Your task to perform on an android device: Search for "energizer triple a" on ebay.com, select the first entry, add it to the cart, then select checkout. Image 0: 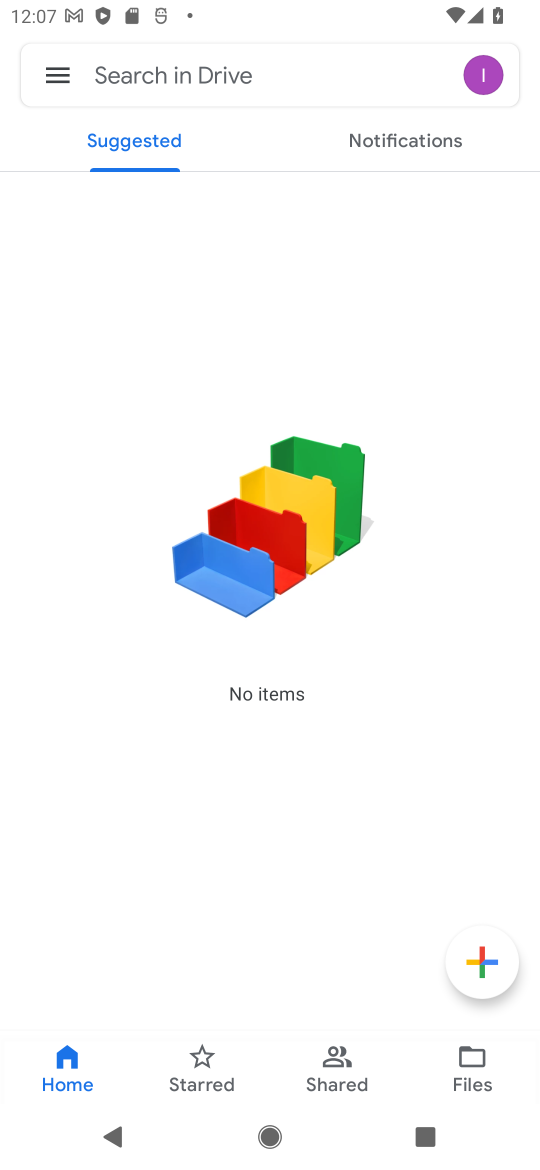
Step 0: press home button
Your task to perform on an android device: Search for "energizer triple a" on ebay.com, select the first entry, add it to the cart, then select checkout. Image 1: 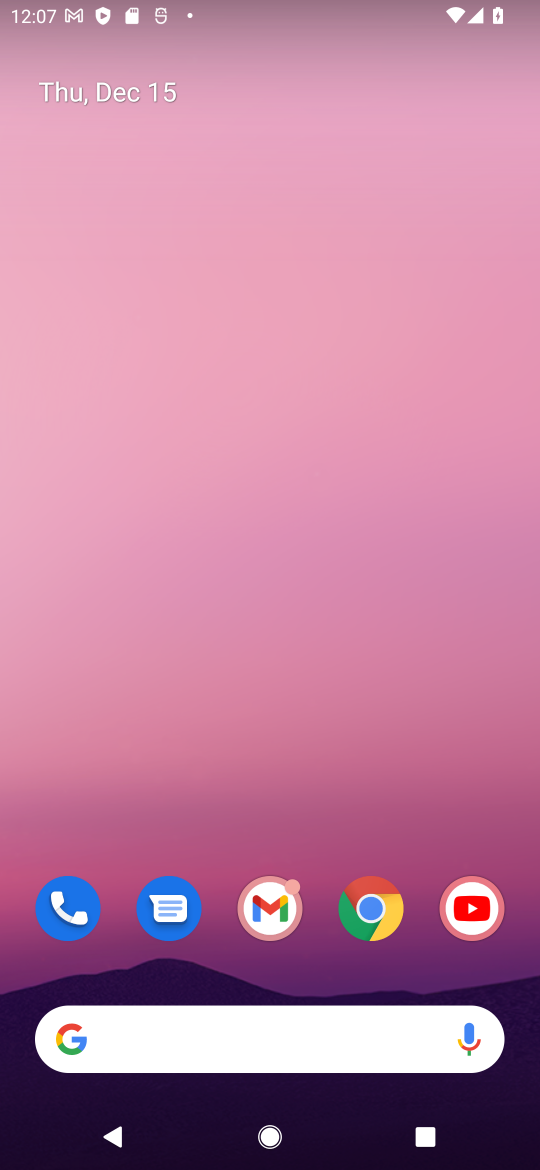
Step 1: click (375, 913)
Your task to perform on an android device: Search for "energizer triple a" on ebay.com, select the first entry, add it to the cart, then select checkout. Image 2: 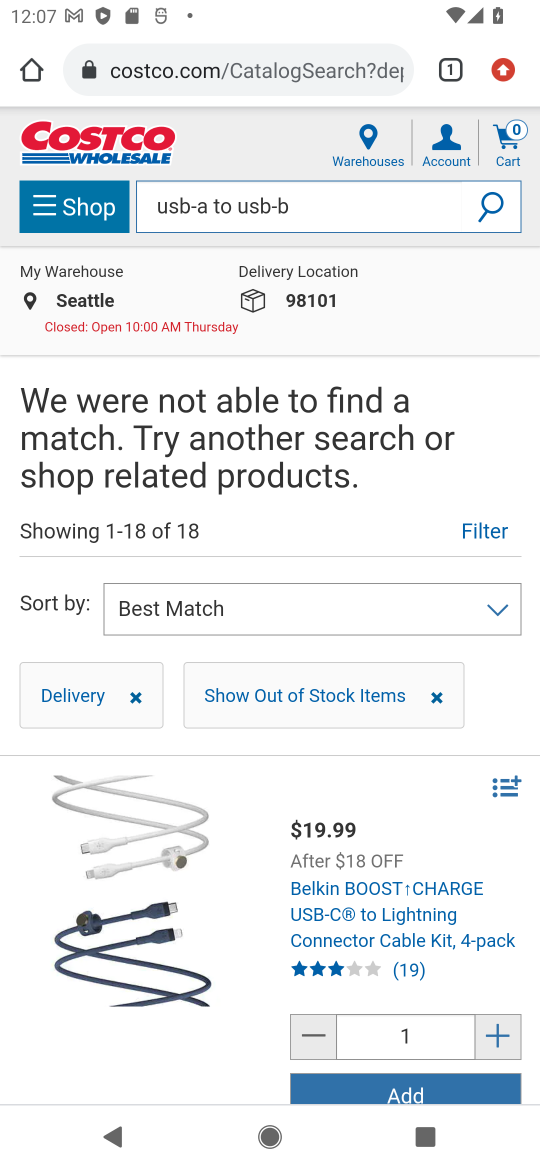
Step 2: click (207, 79)
Your task to perform on an android device: Search for "energizer triple a" on ebay.com, select the first entry, add it to the cart, then select checkout. Image 3: 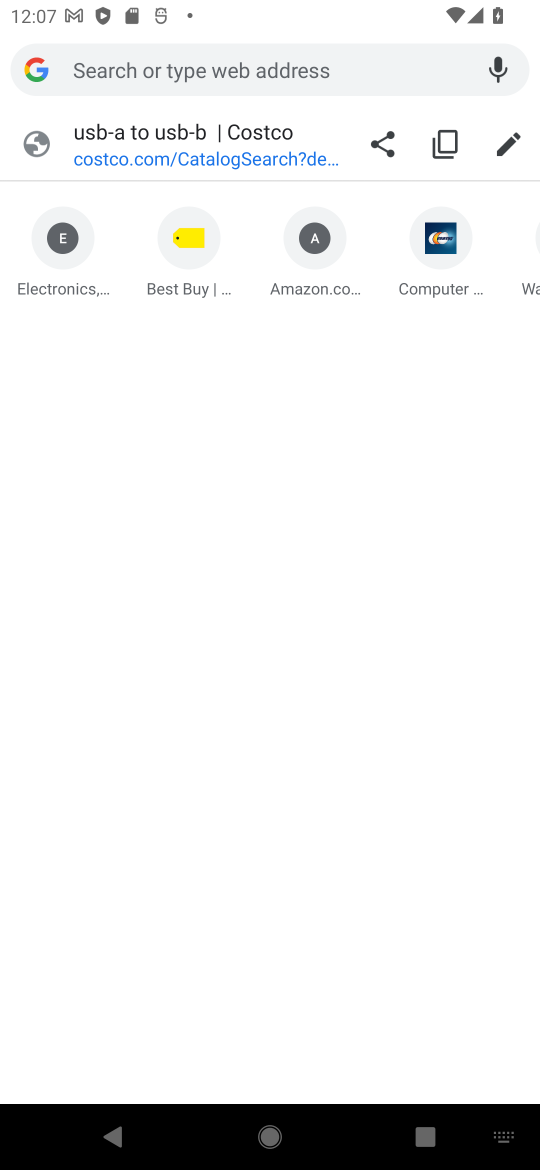
Step 3: type "ebay.com"
Your task to perform on an android device: Search for "energizer triple a" on ebay.com, select the first entry, add it to the cart, then select checkout. Image 4: 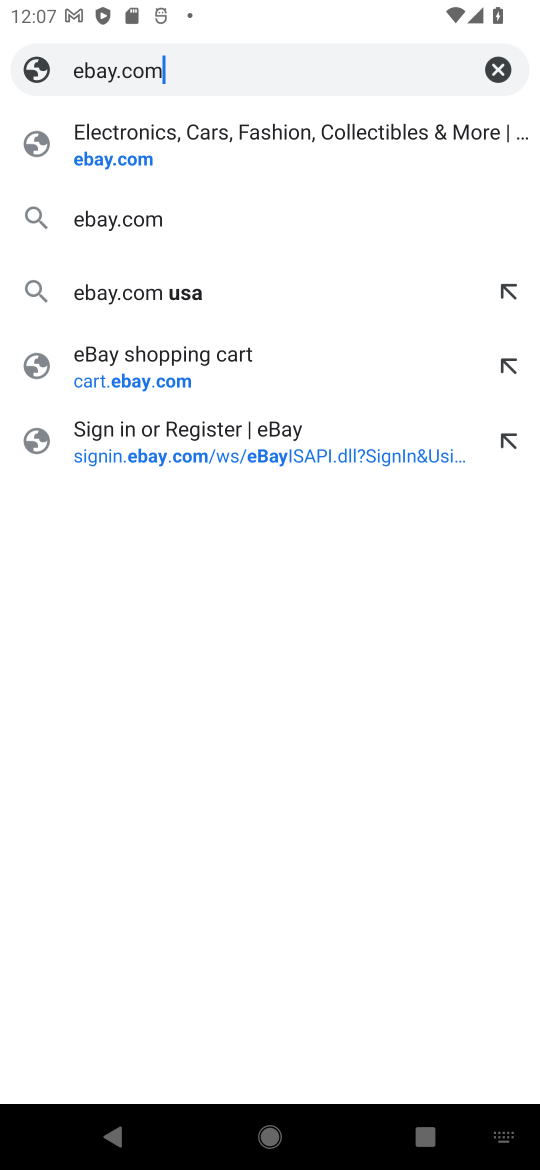
Step 4: click (103, 162)
Your task to perform on an android device: Search for "energizer triple a" on ebay.com, select the first entry, add it to the cart, then select checkout. Image 5: 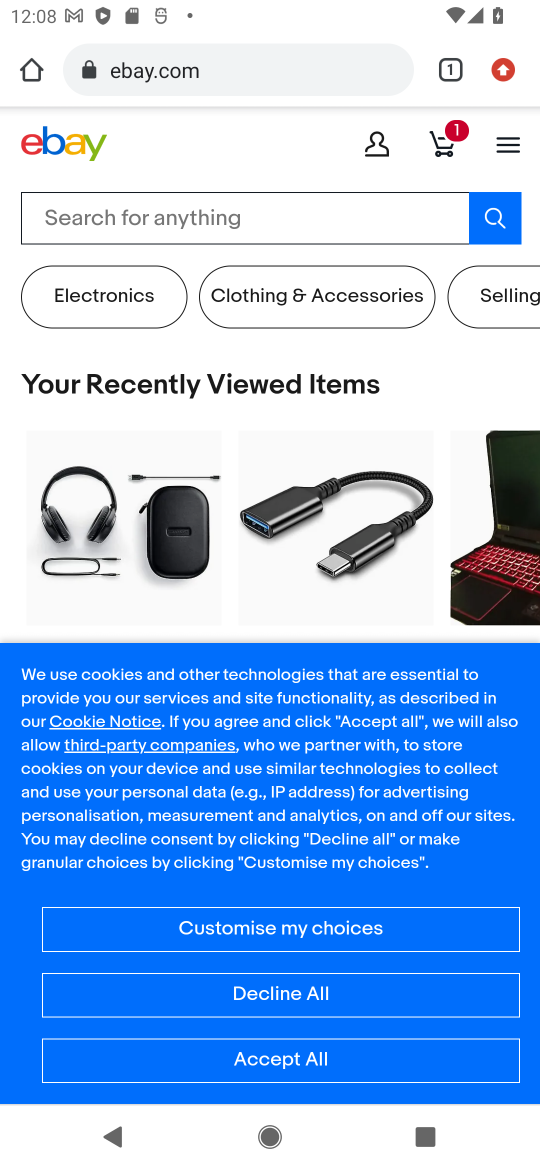
Step 5: click (103, 229)
Your task to perform on an android device: Search for "energizer triple a" on ebay.com, select the first entry, add it to the cart, then select checkout. Image 6: 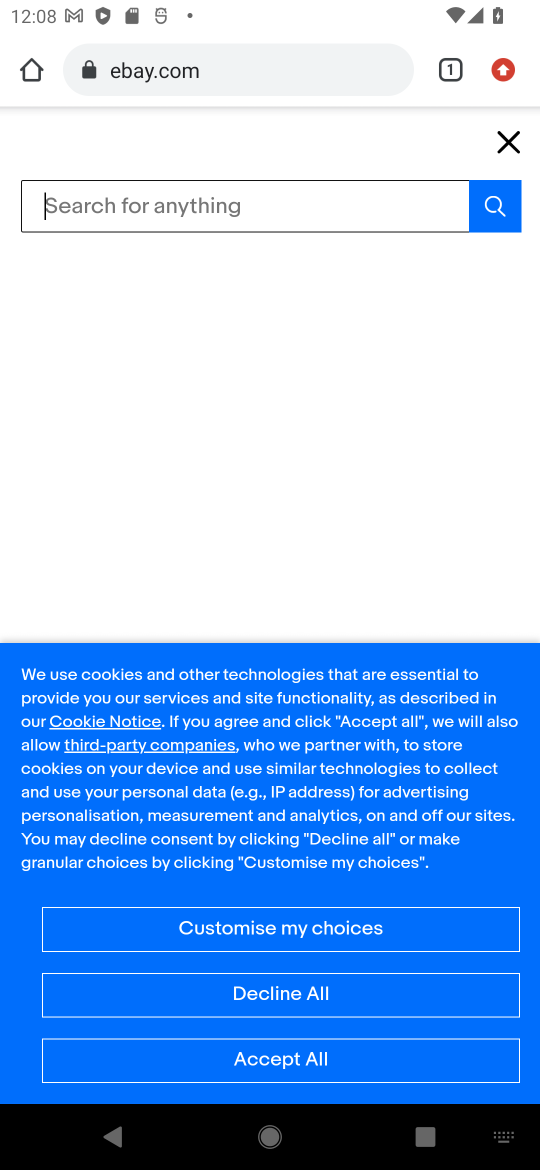
Step 6: type "energizer triple a"
Your task to perform on an android device: Search for "energizer triple a" on ebay.com, select the first entry, add it to the cart, then select checkout. Image 7: 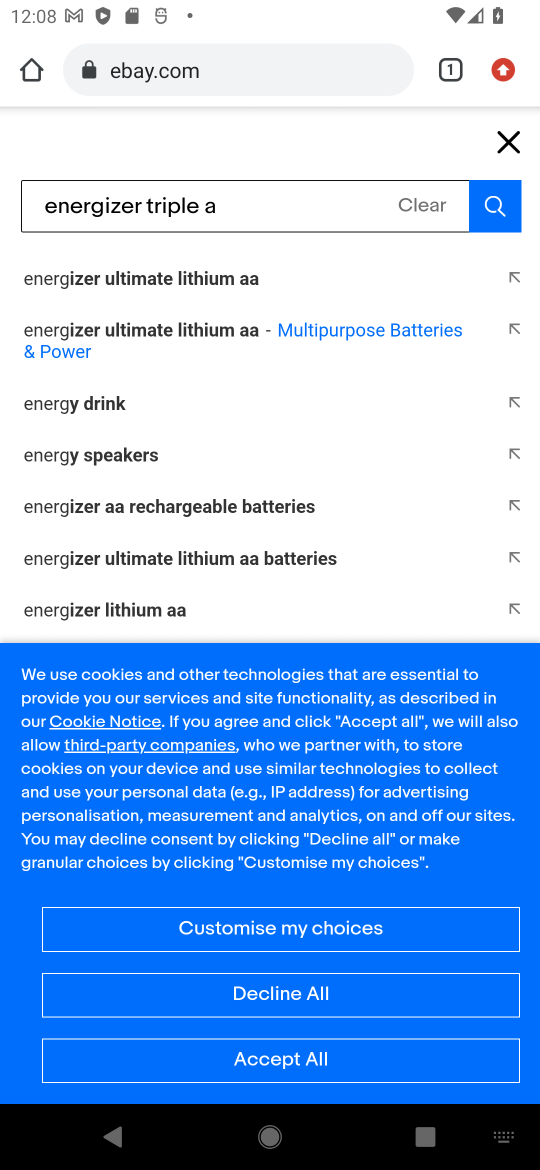
Step 7: click (485, 223)
Your task to perform on an android device: Search for "energizer triple a" on ebay.com, select the first entry, add it to the cart, then select checkout. Image 8: 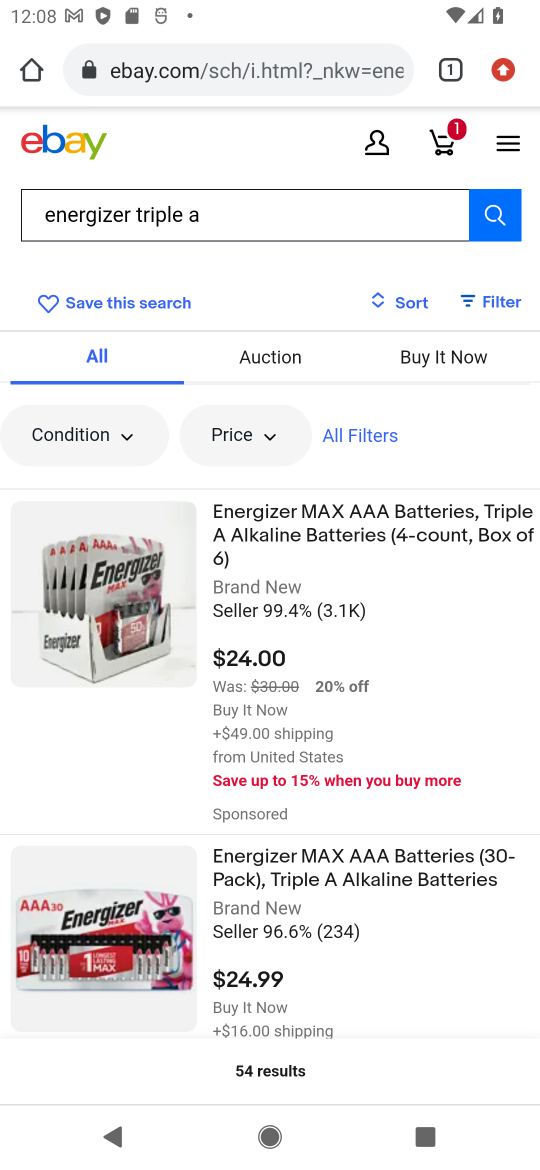
Step 8: click (253, 529)
Your task to perform on an android device: Search for "energizer triple a" on ebay.com, select the first entry, add it to the cart, then select checkout. Image 9: 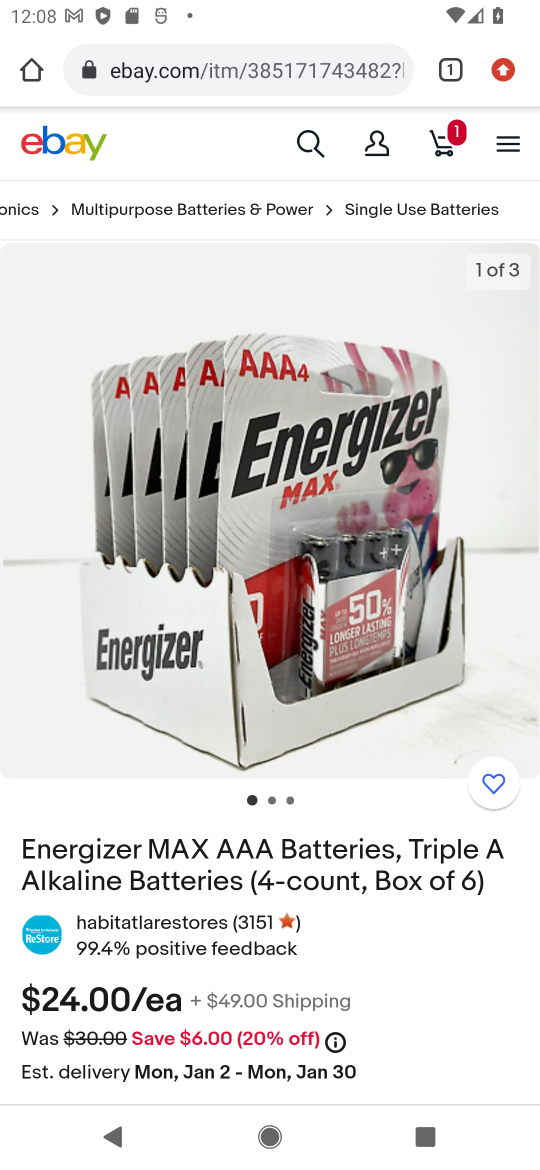
Step 9: drag from (267, 899) to (285, 407)
Your task to perform on an android device: Search for "energizer triple a" on ebay.com, select the first entry, add it to the cart, then select checkout. Image 10: 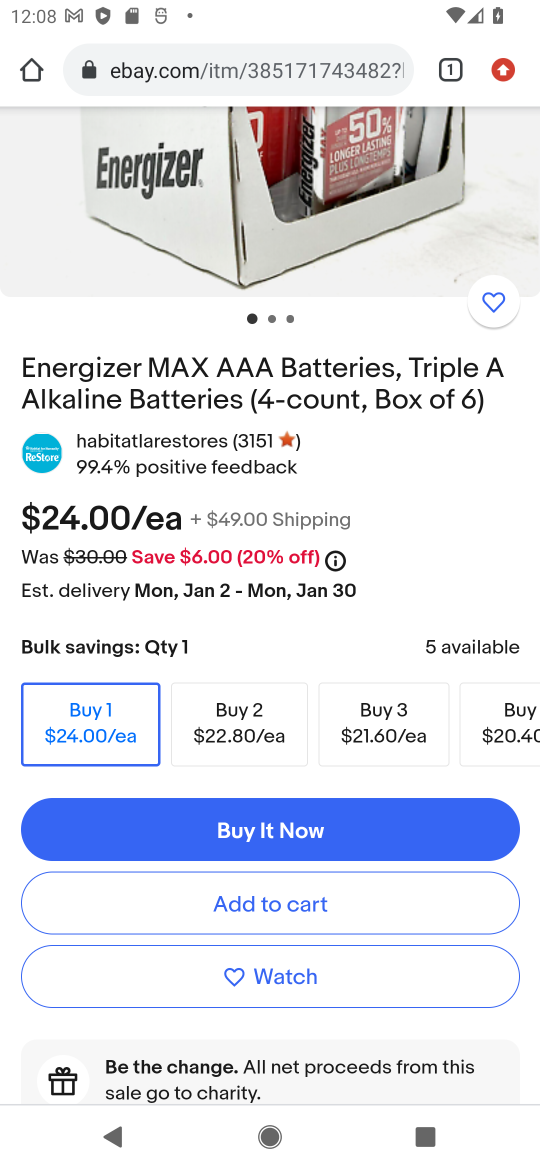
Step 10: click (271, 900)
Your task to perform on an android device: Search for "energizer triple a" on ebay.com, select the first entry, add it to the cart, then select checkout. Image 11: 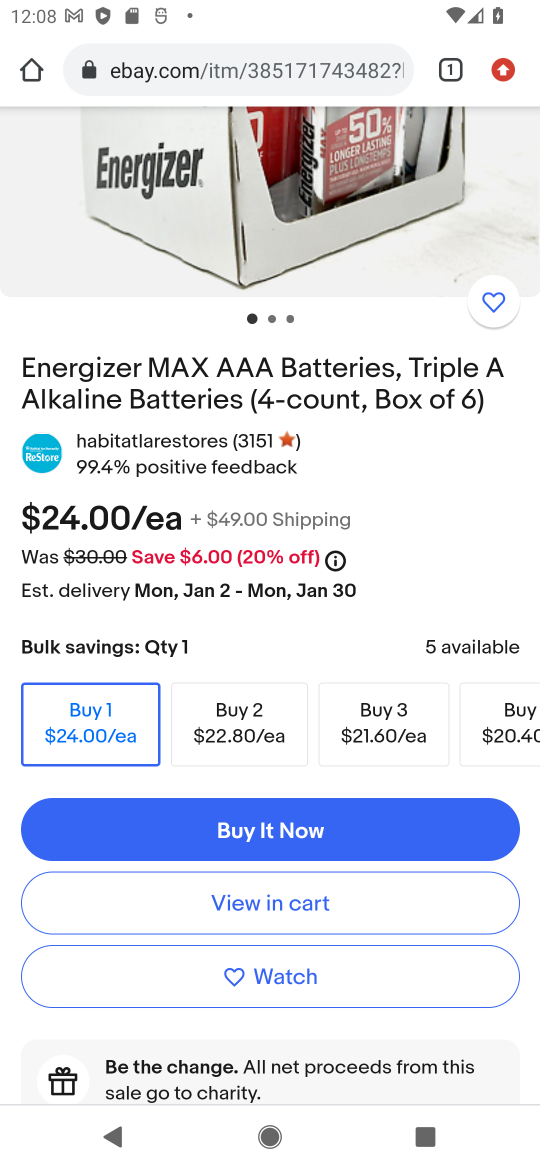
Step 11: click (271, 900)
Your task to perform on an android device: Search for "energizer triple a" on ebay.com, select the first entry, add it to the cart, then select checkout. Image 12: 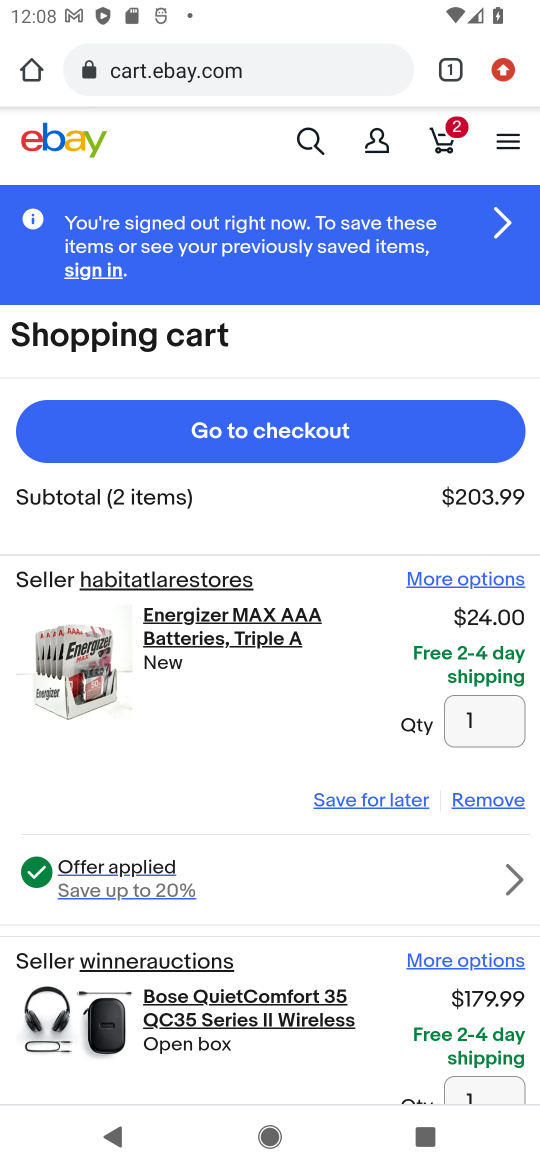
Step 12: click (249, 451)
Your task to perform on an android device: Search for "energizer triple a" on ebay.com, select the first entry, add it to the cart, then select checkout. Image 13: 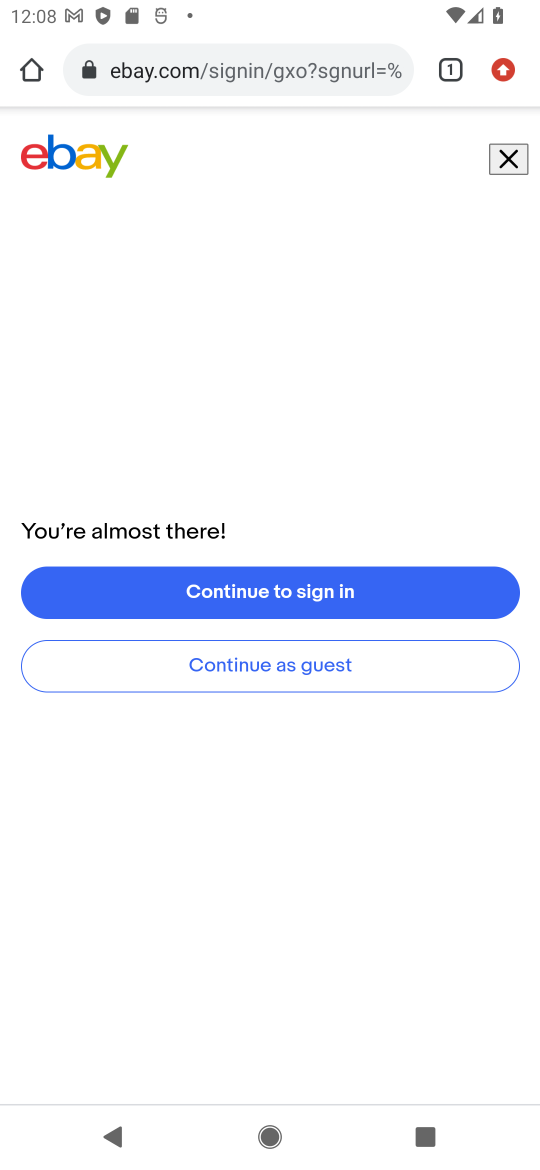
Step 13: task complete